Your task to perform on an android device: Open eBay Image 0: 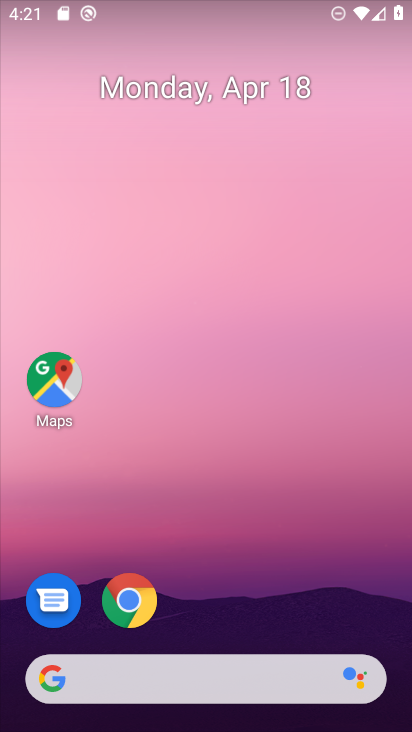
Step 0: click (138, 618)
Your task to perform on an android device: Open eBay Image 1: 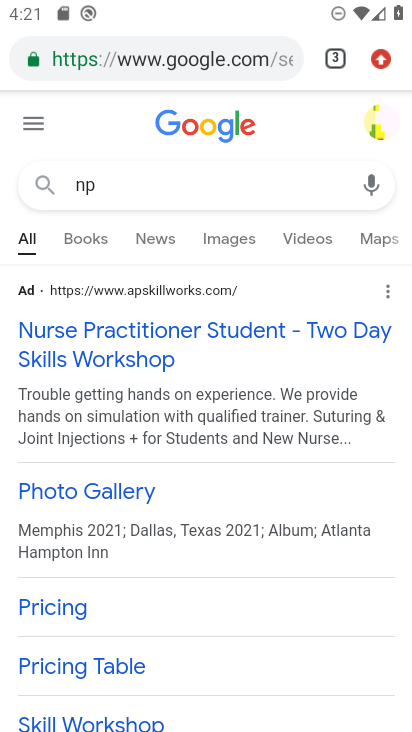
Step 1: click (251, 66)
Your task to perform on an android device: Open eBay Image 2: 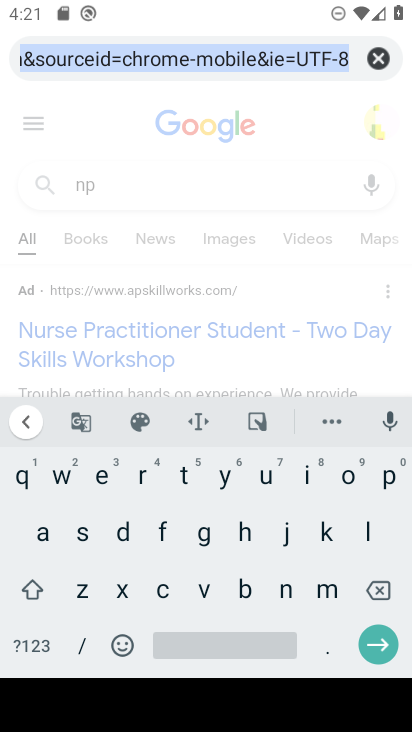
Step 2: click (374, 59)
Your task to perform on an android device: Open eBay Image 3: 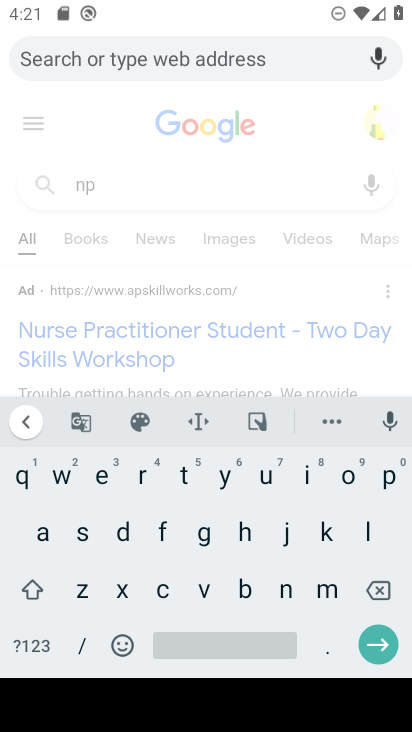
Step 3: click (101, 479)
Your task to perform on an android device: Open eBay Image 4: 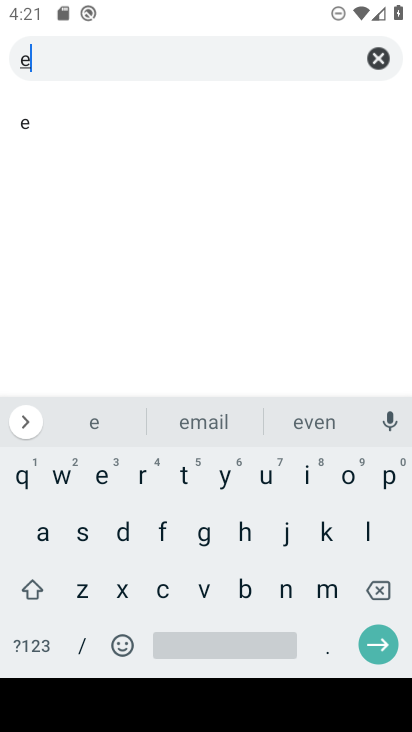
Step 4: click (245, 583)
Your task to perform on an android device: Open eBay Image 5: 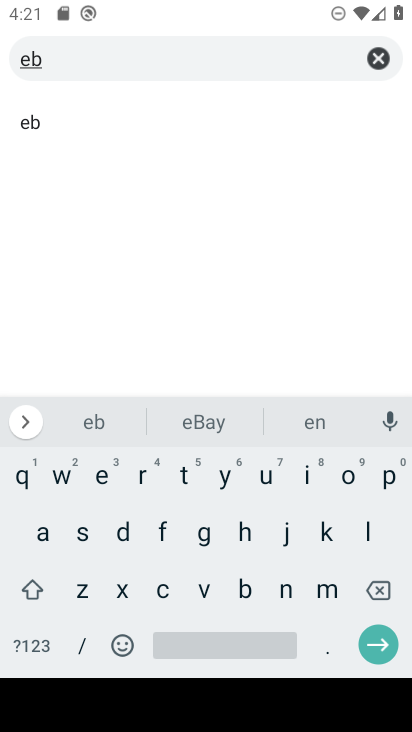
Step 5: click (47, 537)
Your task to perform on an android device: Open eBay Image 6: 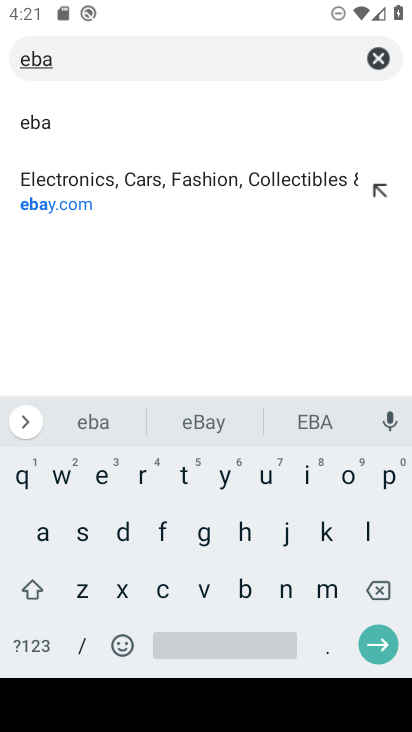
Step 6: click (225, 481)
Your task to perform on an android device: Open eBay Image 7: 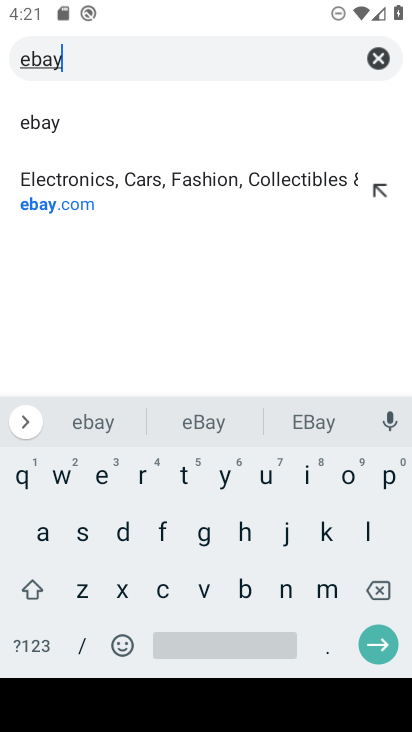
Step 7: click (136, 191)
Your task to perform on an android device: Open eBay Image 8: 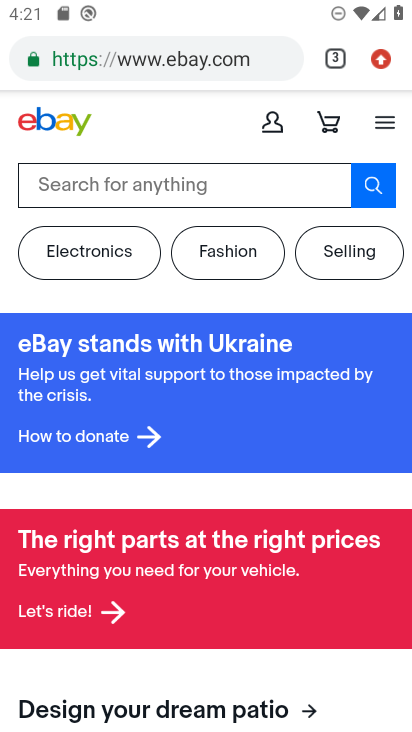
Step 8: task complete